Your task to perform on an android device: change the clock display to show seconds Image 0: 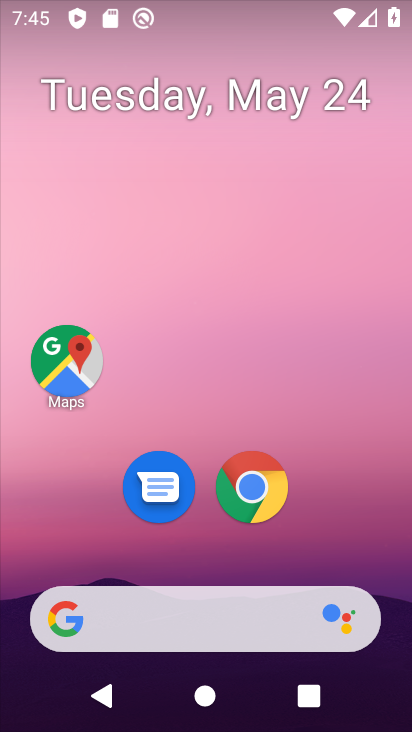
Step 0: press home button
Your task to perform on an android device: change the clock display to show seconds Image 1: 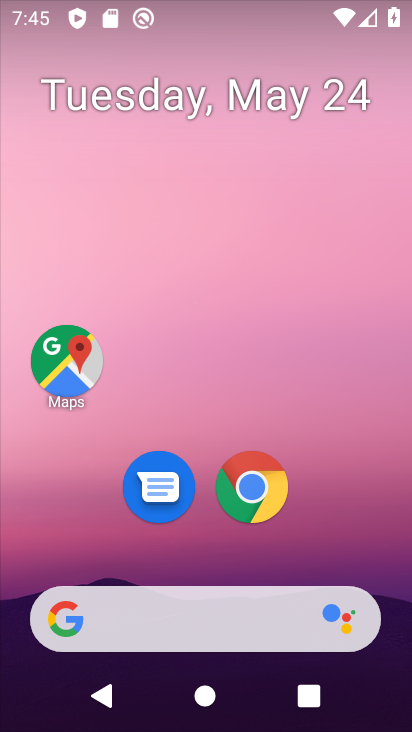
Step 1: drag from (68, 554) to (285, 134)
Your task to perform on an android device: change the clock display to show seconds Image 2: 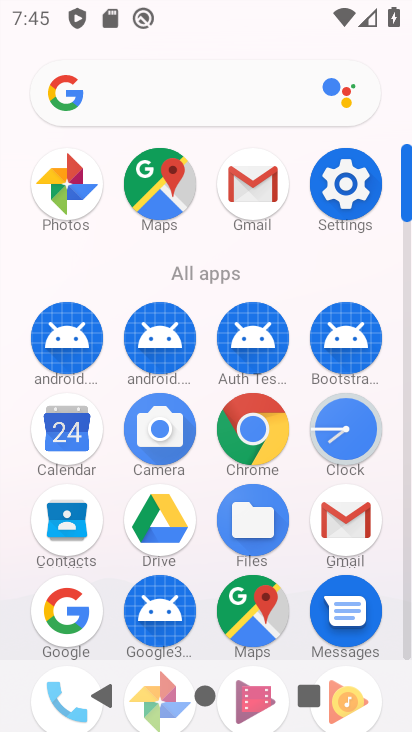
Step 2: click (342, 427)
Your task to perform on an android device: change the clock display to show seconds Image 3: 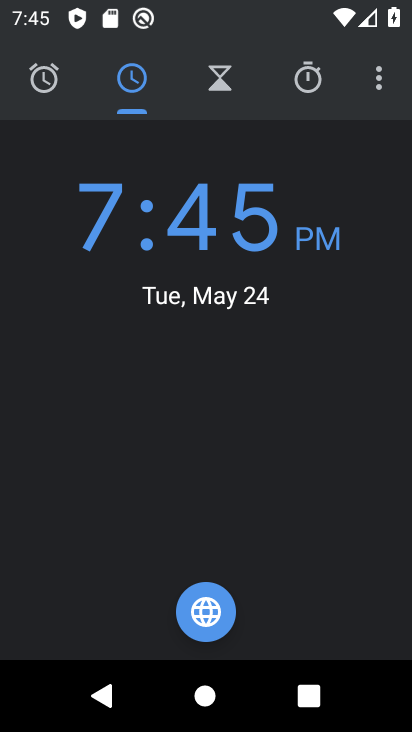
Step 3: click (385, 74)
Your task to perform on an android device: change the clock display to show seconds Image 4: 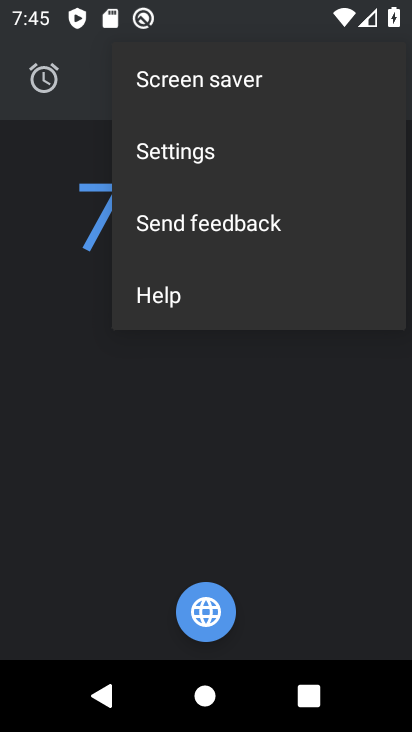
Step 4: click (269, 149)
Your task to perform on an android device: change the clock display to show seconds Image 5: 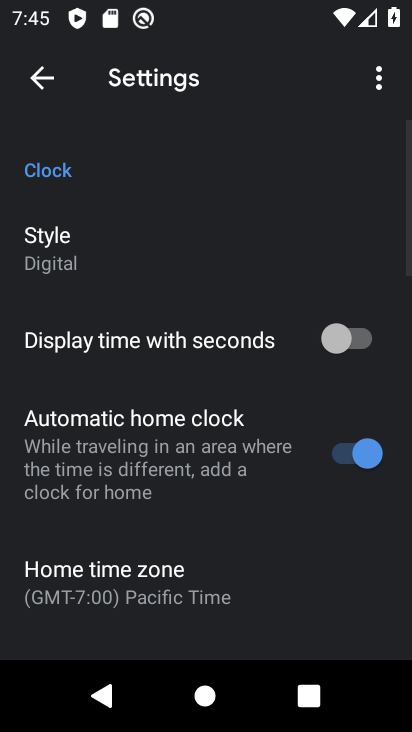
Step 5: click (342, 342)
Your task to perform on an android device: change the clock display to show seconds Image 6: 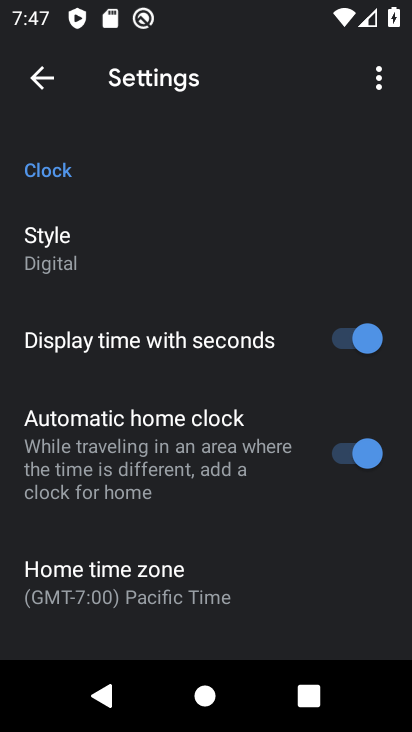
Step 6: task complete